Your task to perform on an android device: set the timer Image 0: 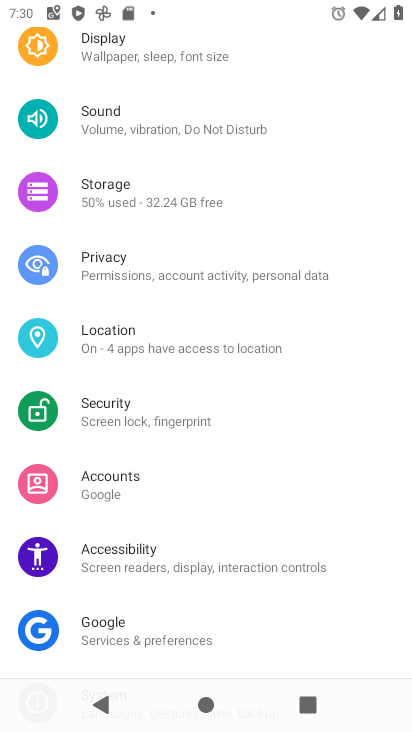
Step 0: press home button
Your task to perform on an android device: set the timer Image 1: 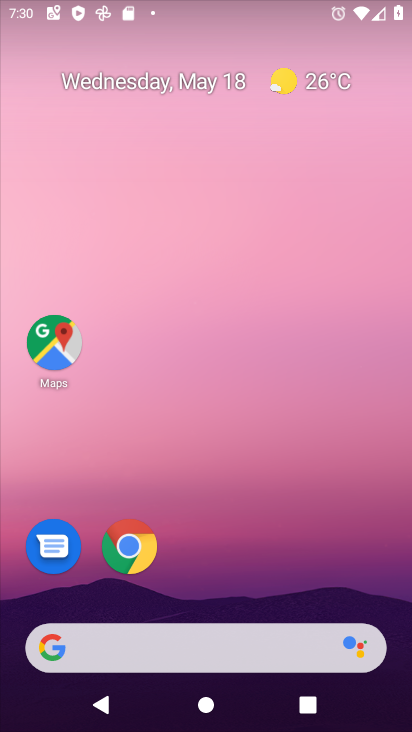
Step 1: drag from (368, 595) to (411, 3)
Your task to perform on an android device: set the timer Image 2: 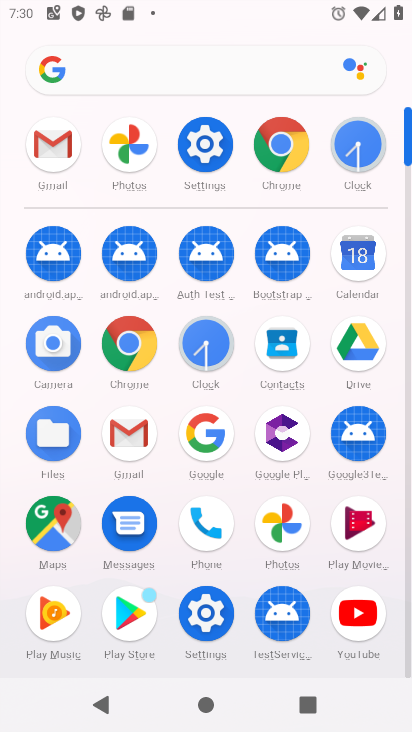
Step 2: click (212, 337)
Your task to perform on an android device: set the timer Image 3: 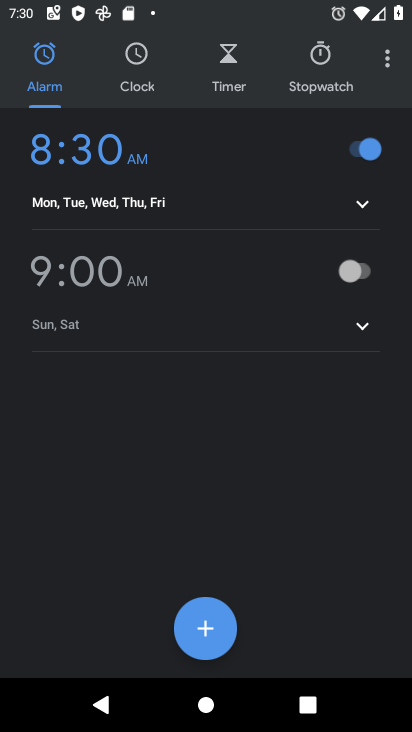
Step 3: click (387, 68)
Your task to perform on an android device: set the timer Image 4: 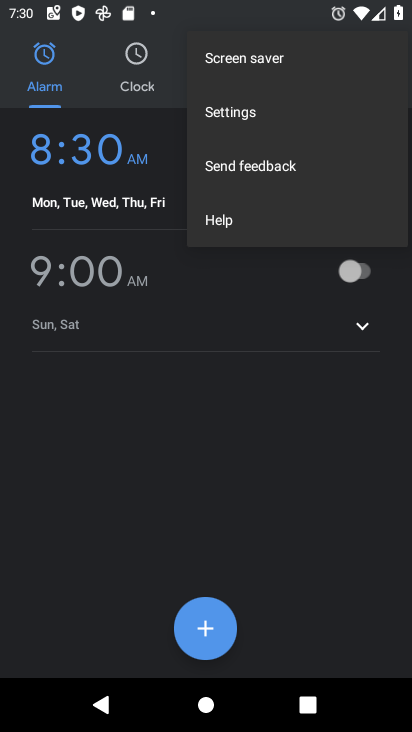
Step 4: click (300, 115)
Your task to perform on an android device: set the timer Image 5: 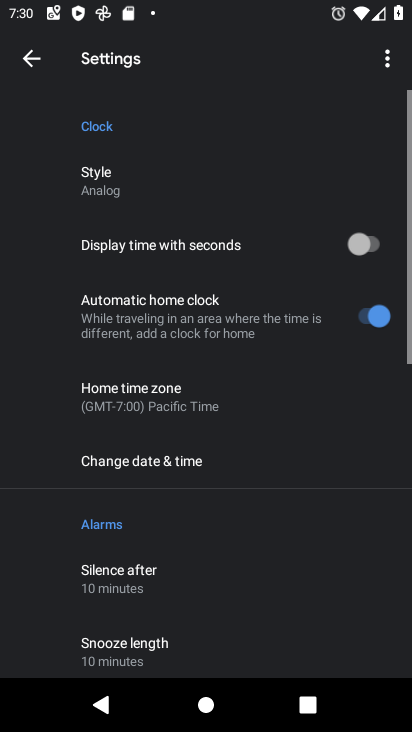
Step 5: click (152, 410)
Your task to perform on an android device: set the timer Image 6: 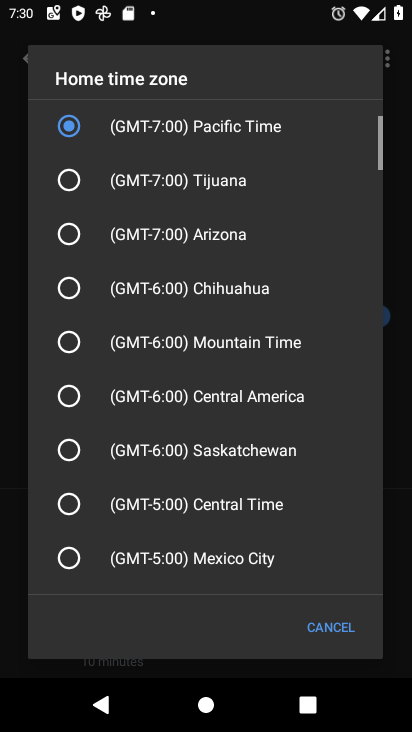
Step 6: click (209, 393)
Your task to perform on an android device: set the timer Image 7: 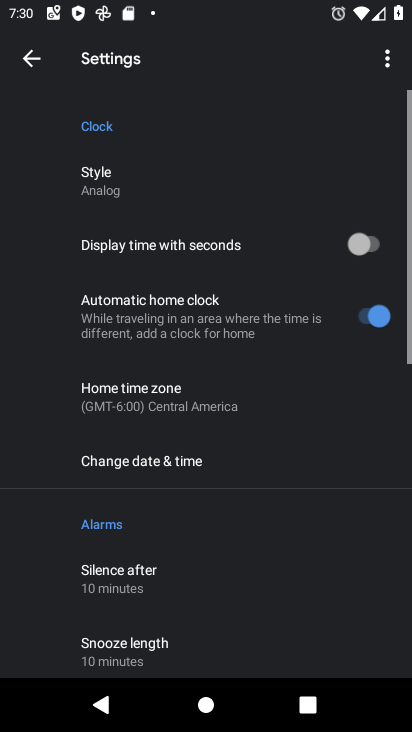
Step 7: task complete